Your task to perform on an android device: uninstall "Booking.com: Hotels and more" Image 0: 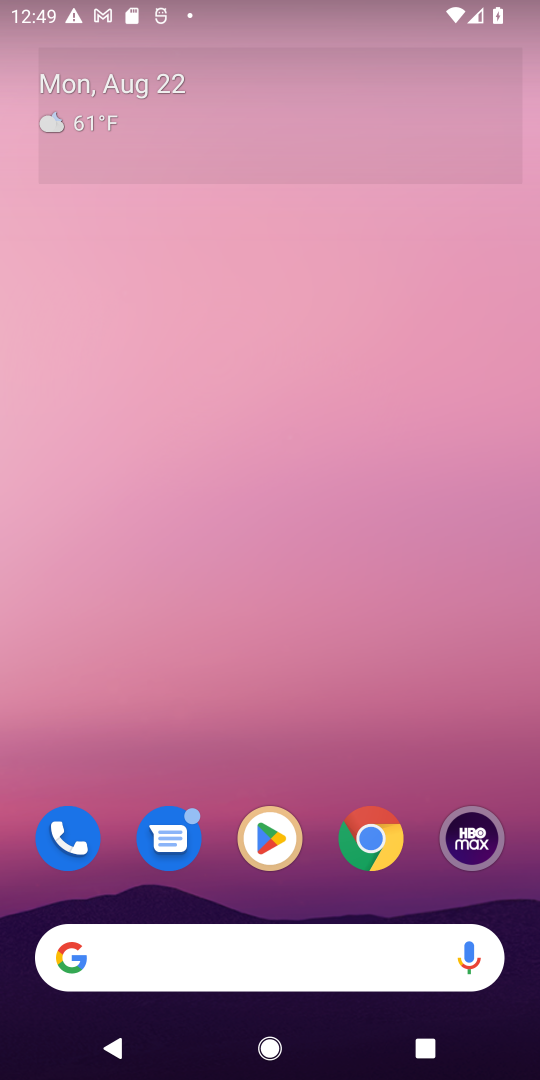
Step 0: click (306, 290)
Your task to perform on an android device: uninstall "Booking.com: Hotels and more" Image 1: 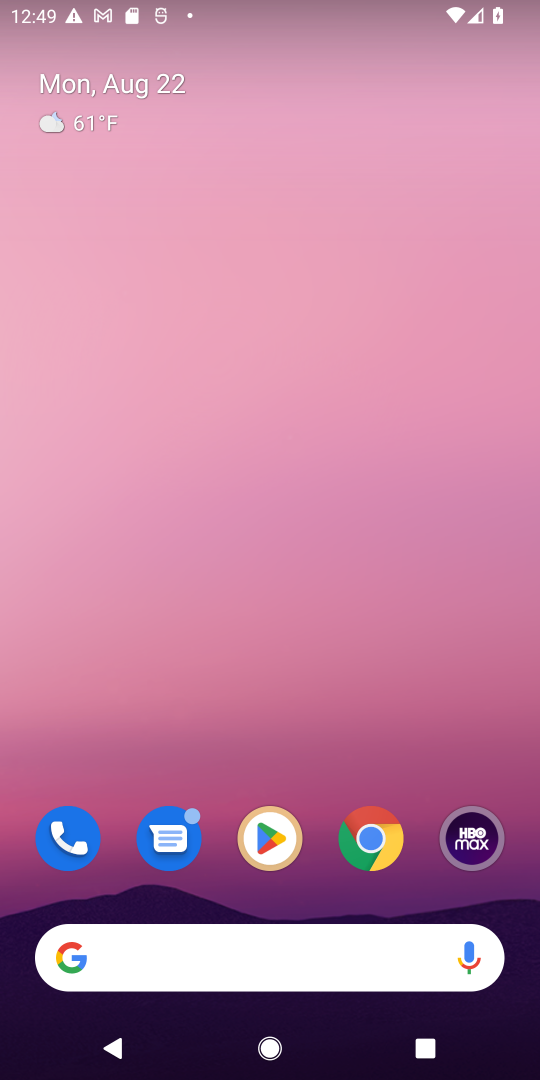
Step 1: drag from (345, 885) to (345, 270)
Your task to perform on an android device: uninstall "Booking.com: Hotels and more" Image 2: 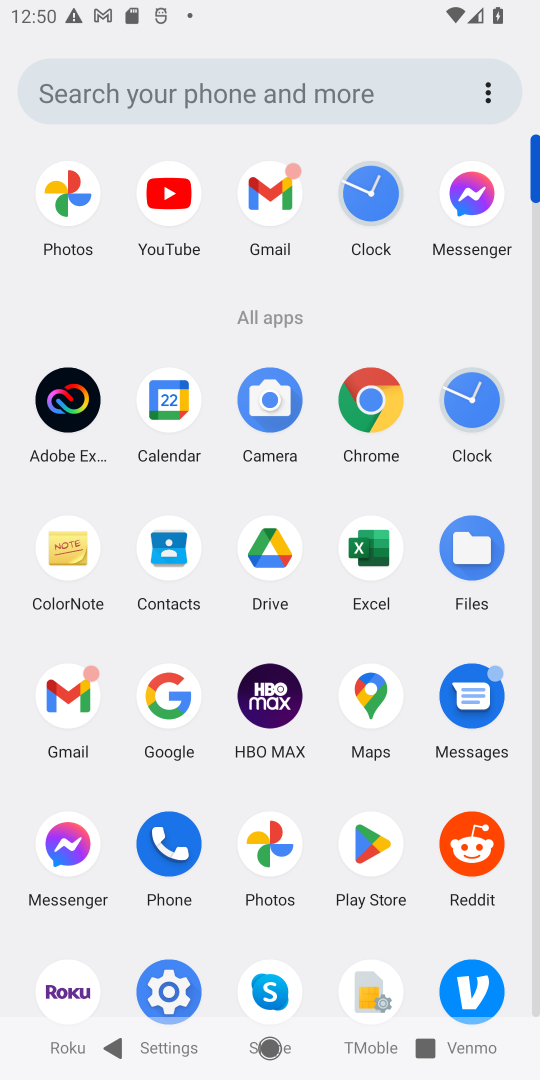
Step 2: click (365, 847)
Your task to perform on an android device: uninstall "Booking.com: Hotels and more" Image 3: 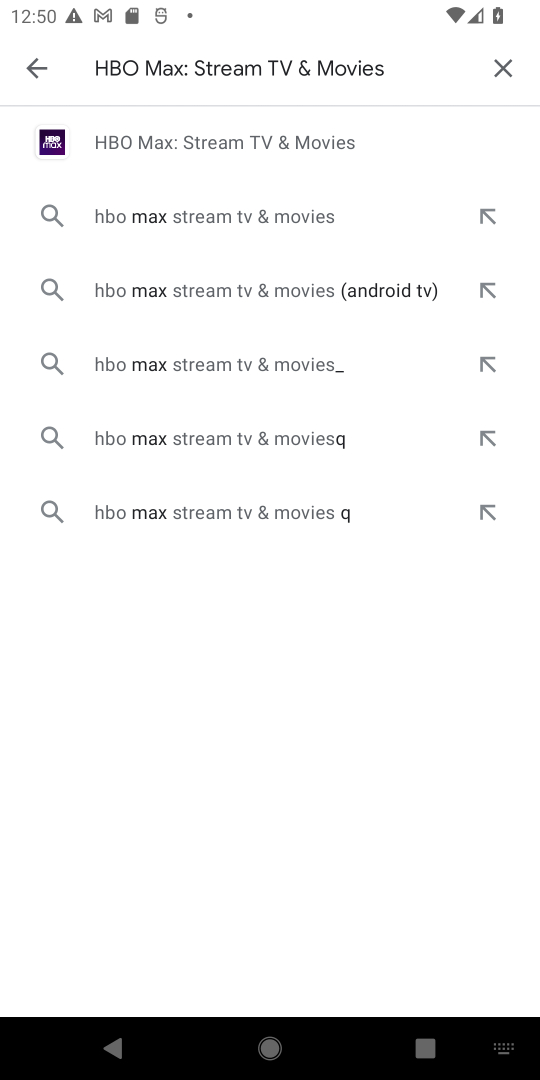
Step 3: click (500, 72)
Your task to perform on an android device: uninstall "Booking.com: Hotels and more" Image 4: 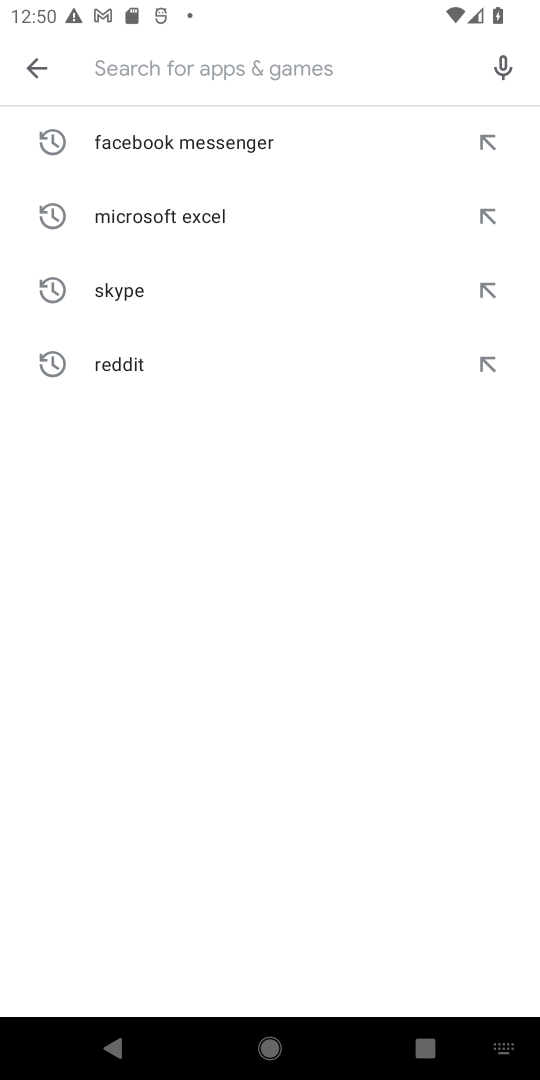
Step 4: drag from (381, 1075) to (496, 1067)
Your task to perform on an android device: uninstall "Booking.com: Hotels and more" Image 5: 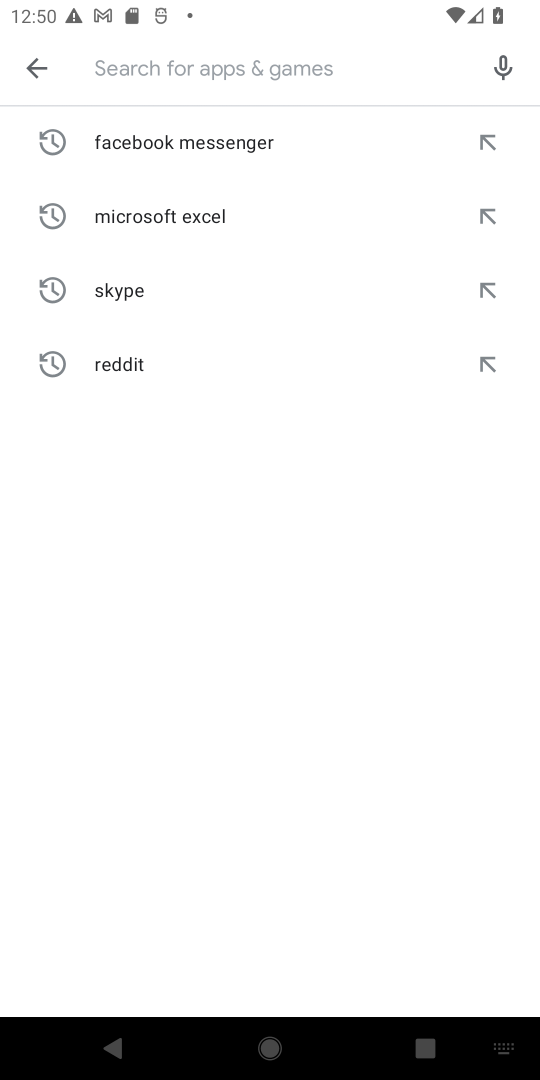
Step 5: type "Booking.com: Hotels and more"
Your task to perform on an android device: uninstall "Booking.com: Hotels and more" Image 6: 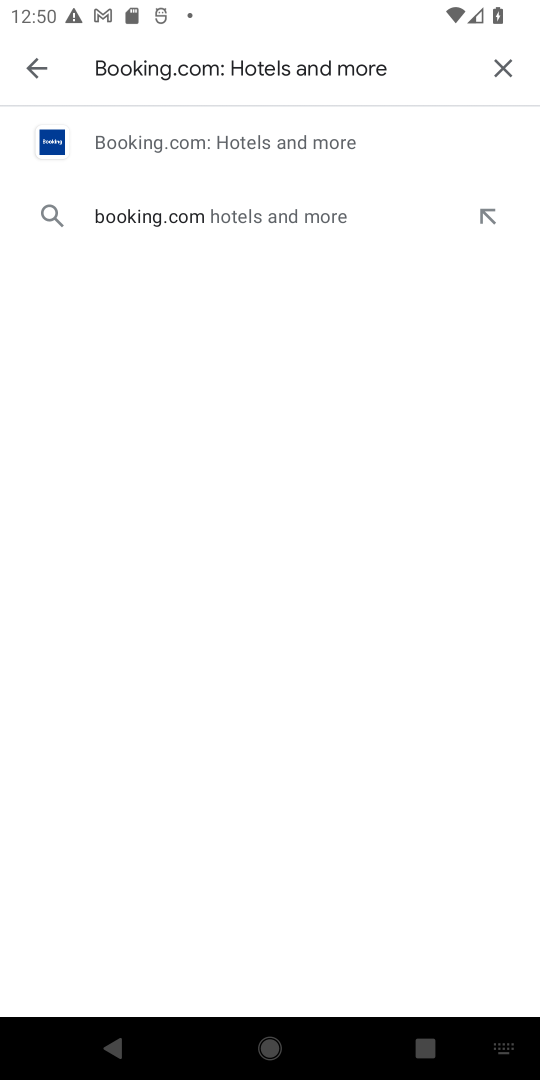
Step 6: click (306, 151)
Your task to perform on an android device: uninstall "Booking.com: Hotels and more" Image 7: 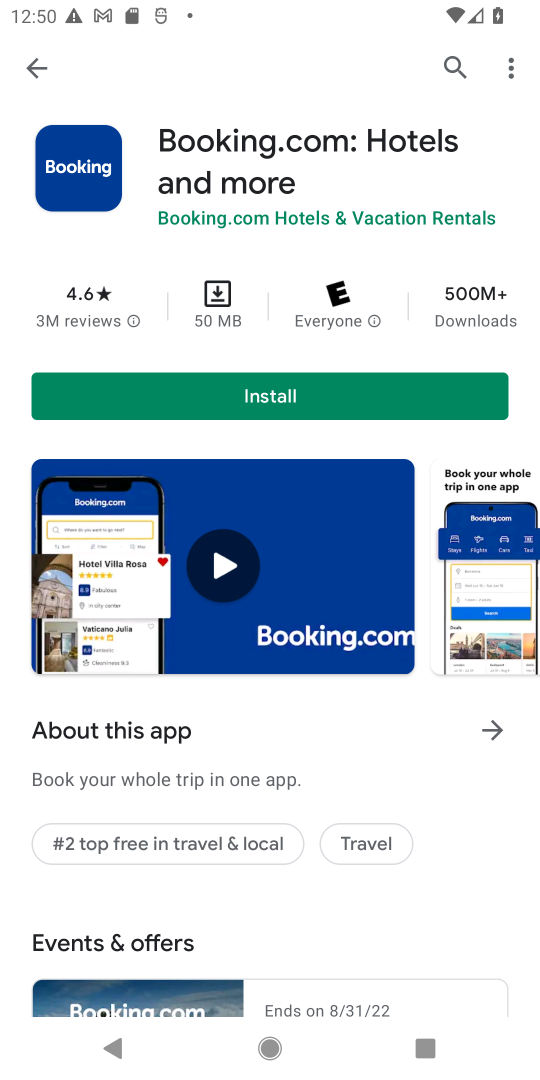
Step 7: click (301, 392)
Your task to perform on an android device: uninstall "Booking.com: Hotels and more" Image 8: 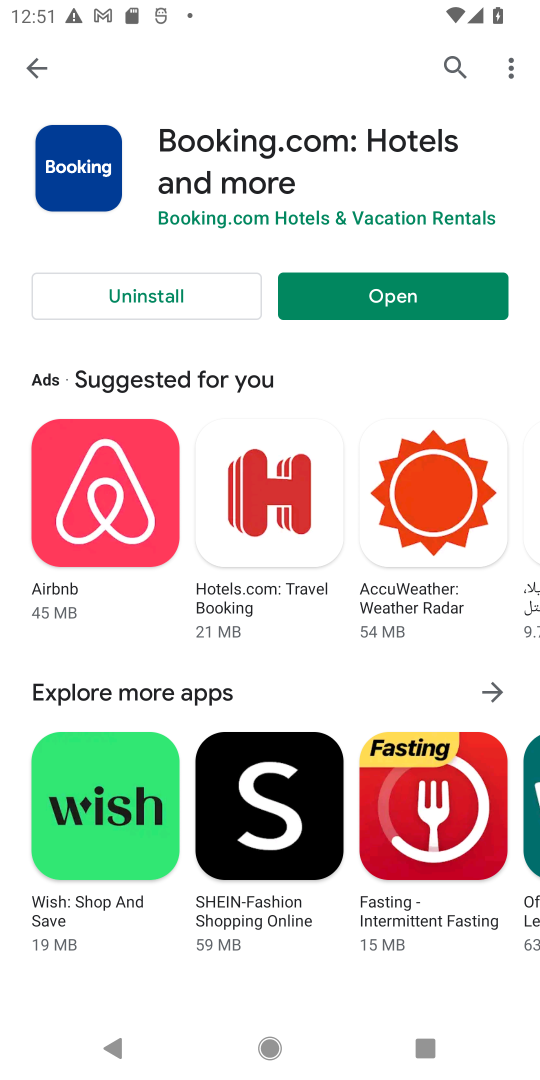
Step 8: click (226, 296)
Your task to perform on an android device: uninstall "Booking.com: Hotels and more" Image 9: 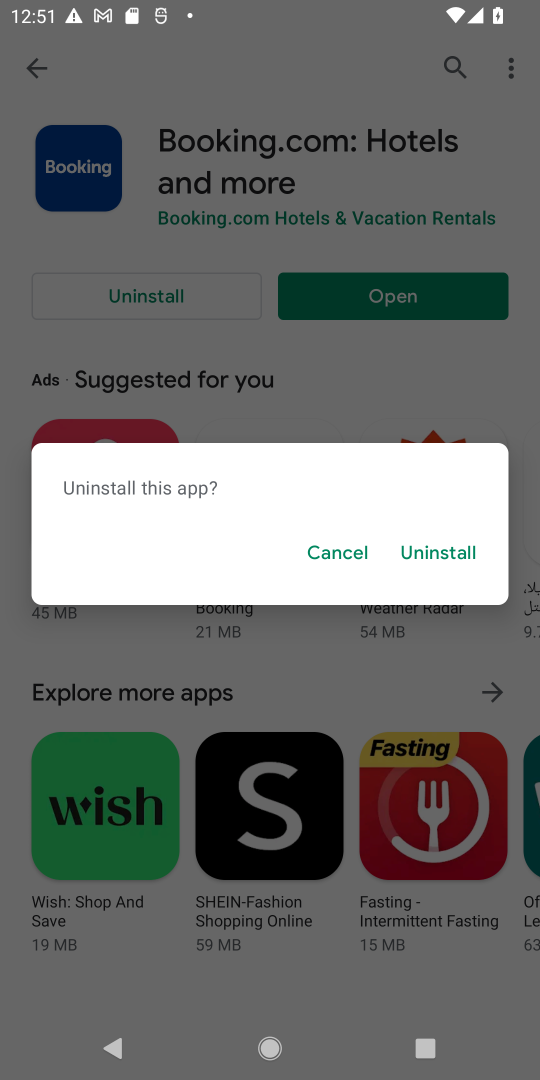
Step 9: click (413, 542)
Your task to perform on an android device: uninstall "Booking.com: Hotels and more" Image 10: 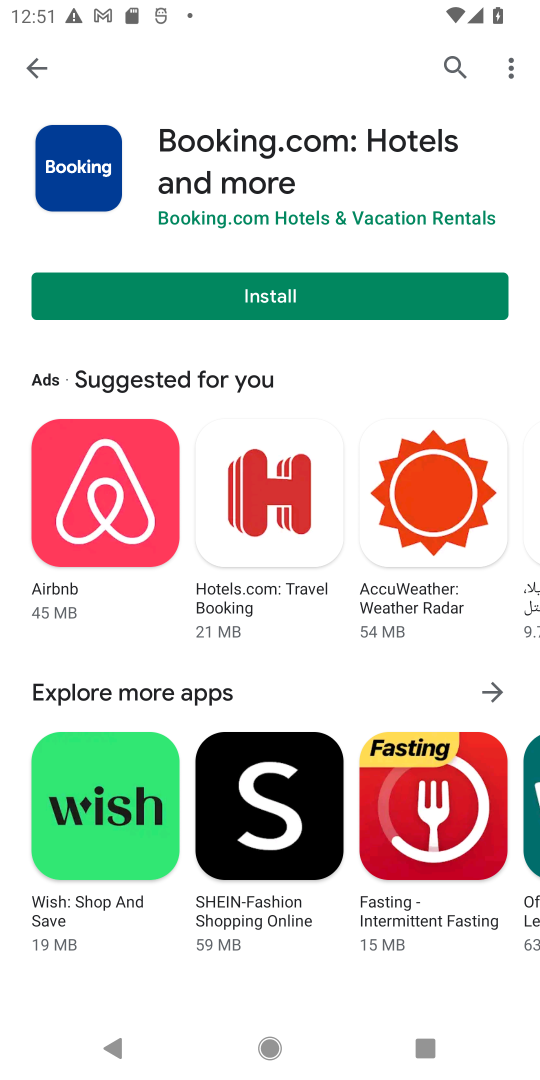
Step 10: task complete